Your task to perform on an android device: check google app version Image 0: 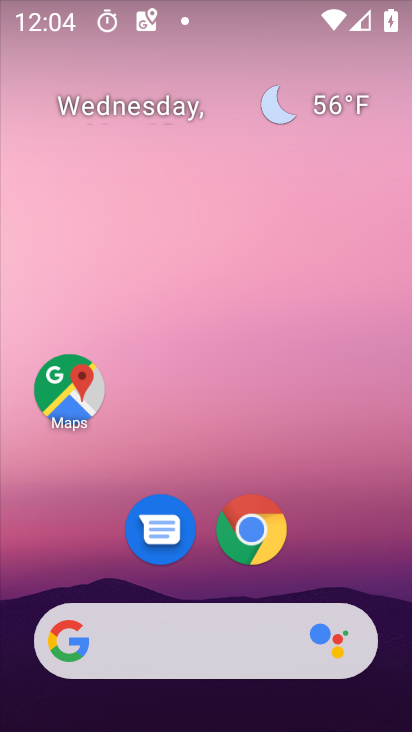
Step 0: click (131, 659)
Your task to perform on an android device: check google app version Image 1: 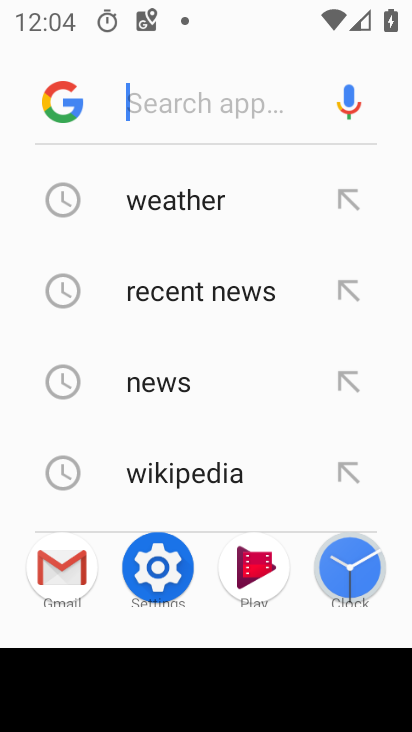
Step 1: click (62, 110)
Your task to perform on an android device: check google app version Image 2: 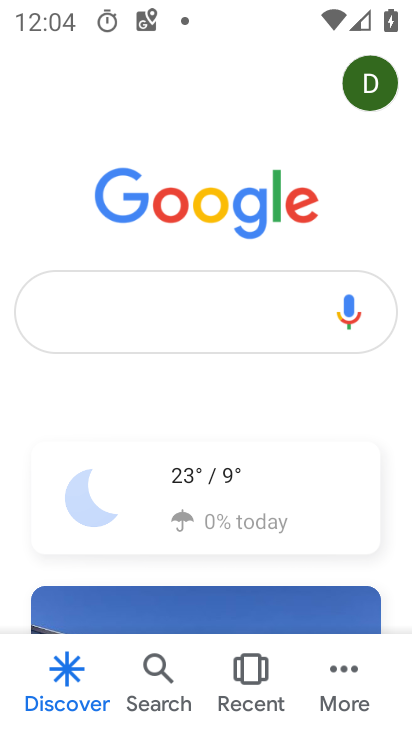
Step 2: click (346, 680)
Your task to perform on an android device: check google app version Image 3: 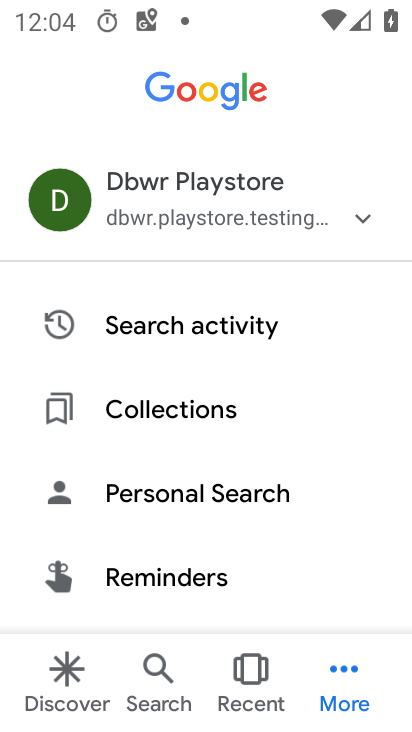
Step 3: click (338, 672)
Your task to perform on an android device: check google app version Image 4: 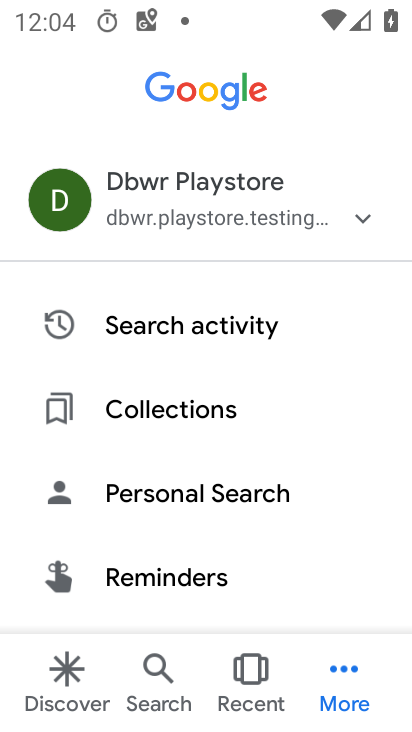
Step 4: drag from (124, 566) to (311, 45)
Your task to perform on an android device: check google app version Image 5: 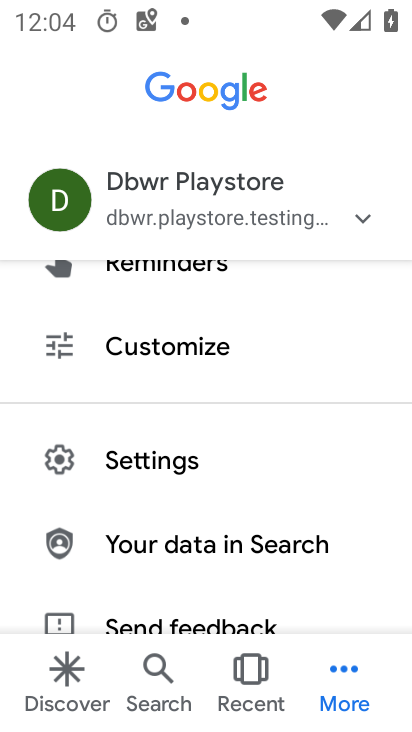
Step 5: click (202, 479)
Your task to perform on an android device: check google app version Image 6: 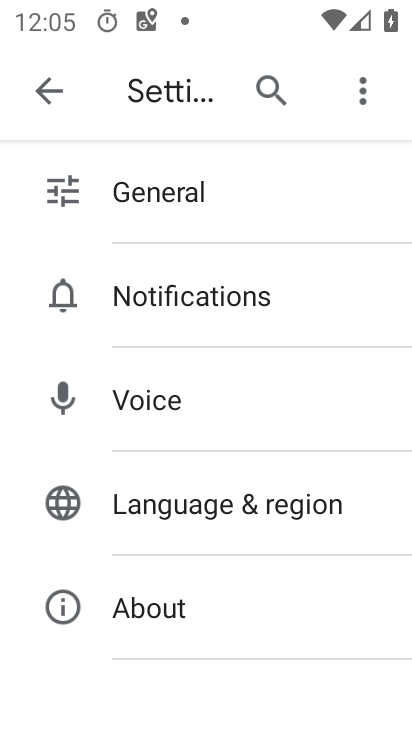
Step 6: click (186, 642)
Your task to perform on an android device: check google app version Image 7: 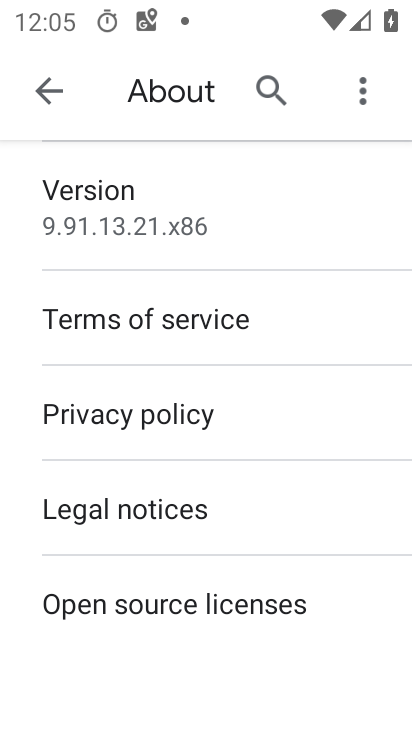
Step 7: task complete